Your task to perform on an android device: Open eBay Image 0: 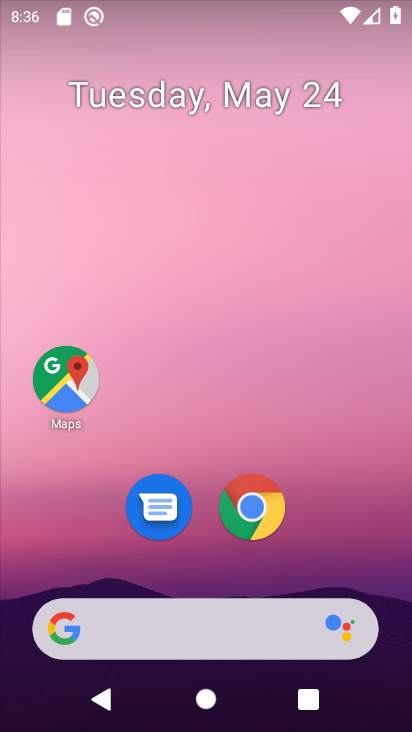
Step 0: click (285, 168)
Your task to perform on an android device: Open eBay Image 1: 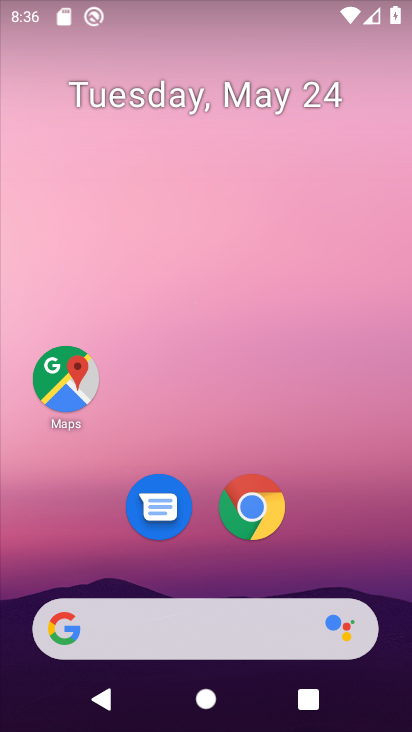
Step 1: drag from (217, 566) to (220, 13)
Your task to perform on an android device: Open eBay Image 2: 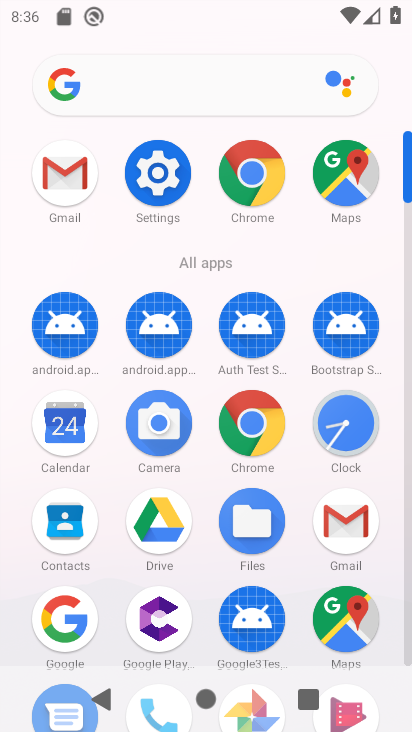
Step 2: click (177, 78)
Your task to perform on an android device: Open eBay Image 3: 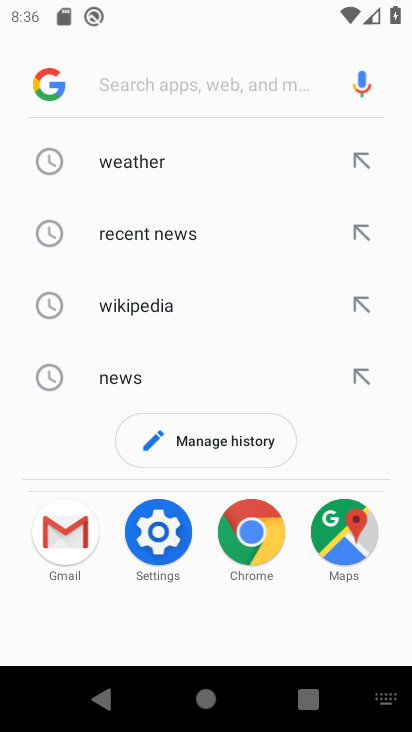
Step 3: type "ebay"
Your task to perform on an android device: Open eBay Image 4: 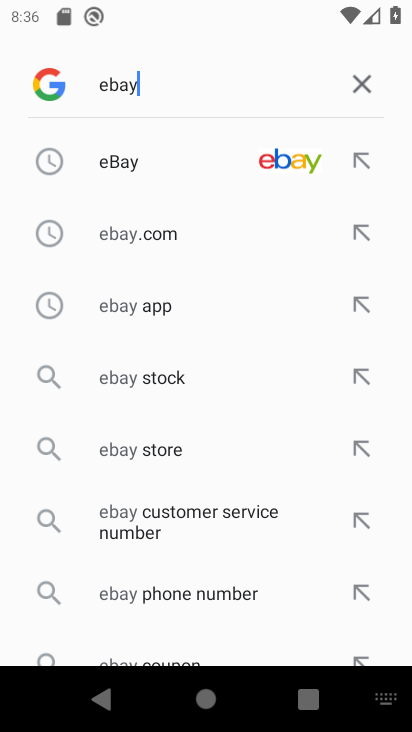
Step 4: click (179, 156)
Your task to perform on an android device: Open eBay Image 5: 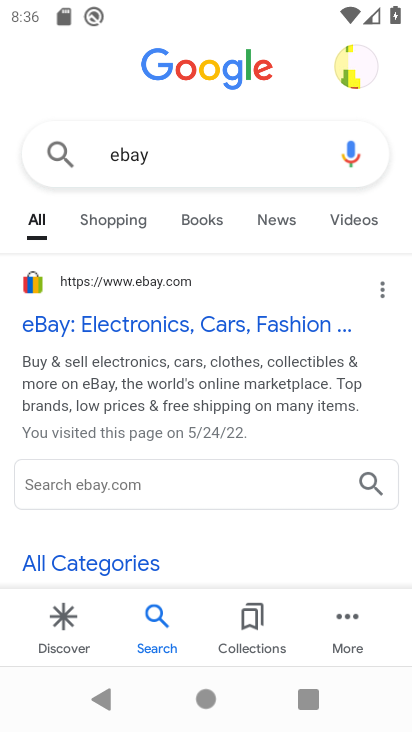
Step 5: drag from (214, 538) to (326, 166)
Your task to perform on an android device: Open eBay Image 6: 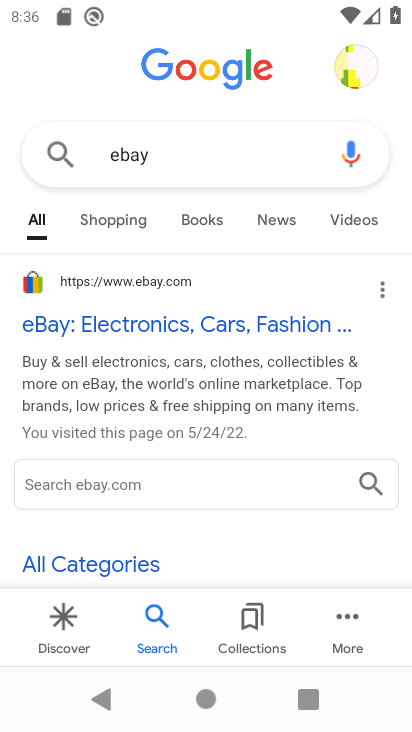
Step 6: click (171, 329)
Your task to perform on an android device: Open eBay Image 7: 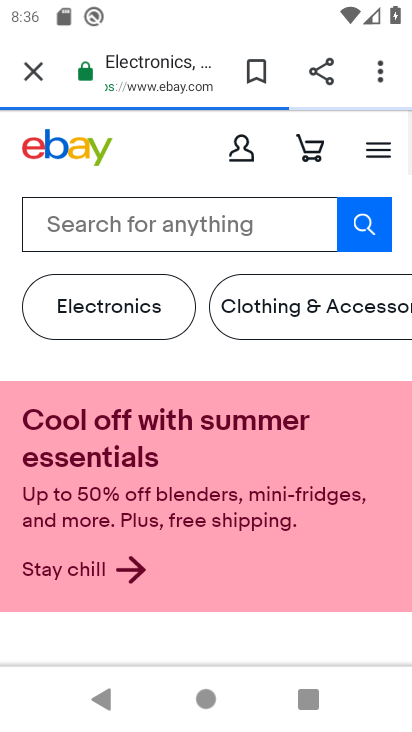
Step 7: task complete